Your task to perform on an android device: snooze an email in the gmail app Image 0: 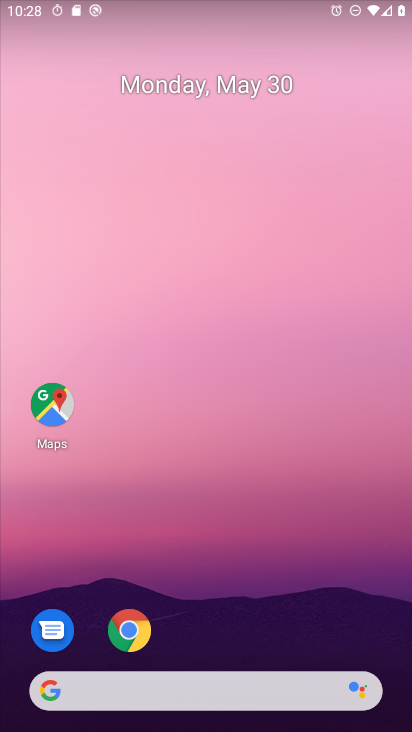
Step 0: drag from (342, 639) to (396, 75)
Your task to perform on an android device: snooze an email in the gmail app Image 1: 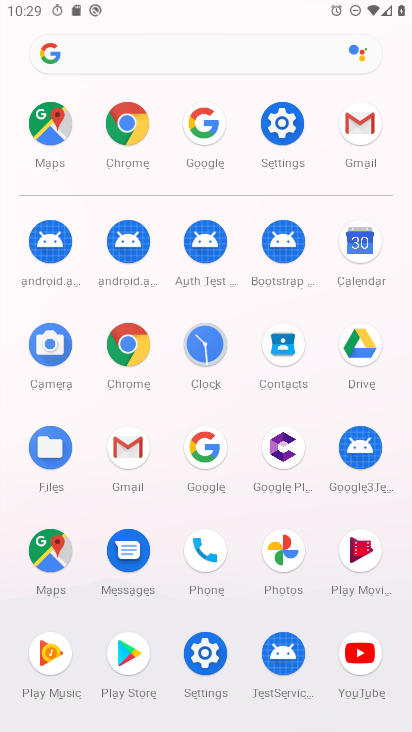
Step 1: click (129, 462)
Your task to perform on an android device: snooze an email in the gmail app Image 2: 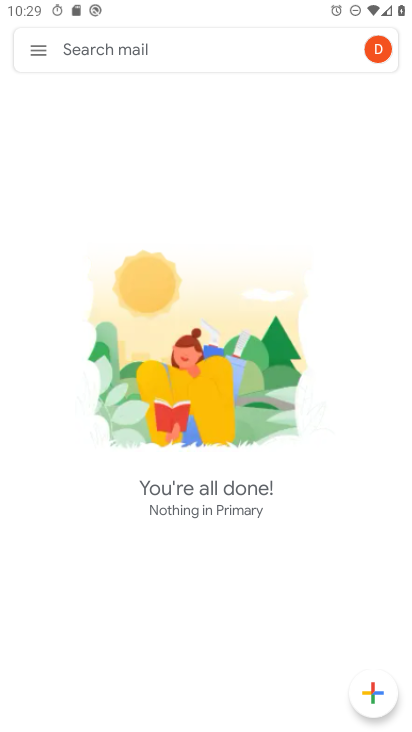
Step 2: click (35, 54)
Your task to perform on an android device: snooze an email in the gmail app Image 3: 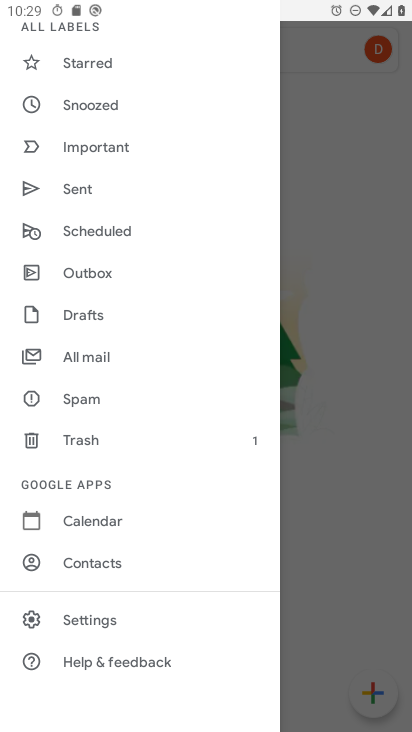
Step 3: click (129, 618)
Your task to perform on an android device: snooze an email in the gmail app Image 4: 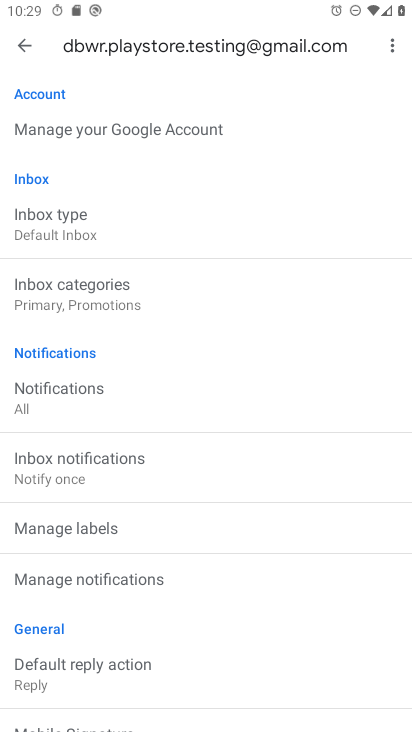
Step 4: task complete